Your task to perform on an android device: Open Maps and search for coffee Image 0: 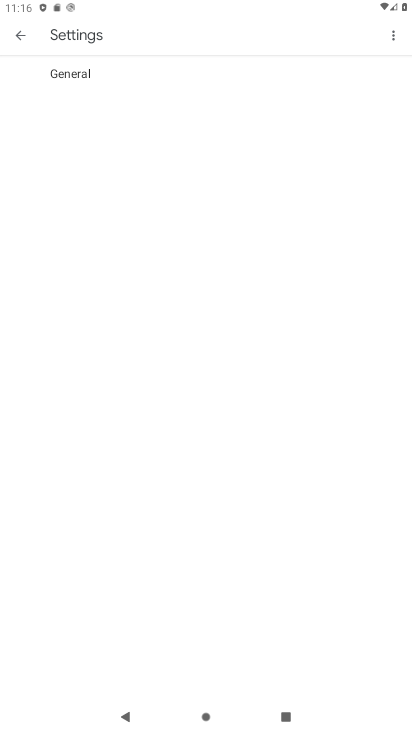
Step 0: press home button
Your task to perform on an android device: Open Maps and search for coffee Image 1: 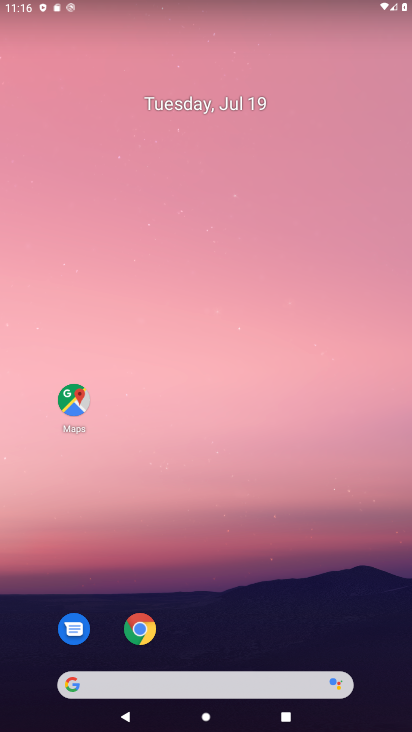
Step 1: drag from (334, 567) to (352, 121)
Your task to perform on an android device: Open Maps and search for coffee Image 2: 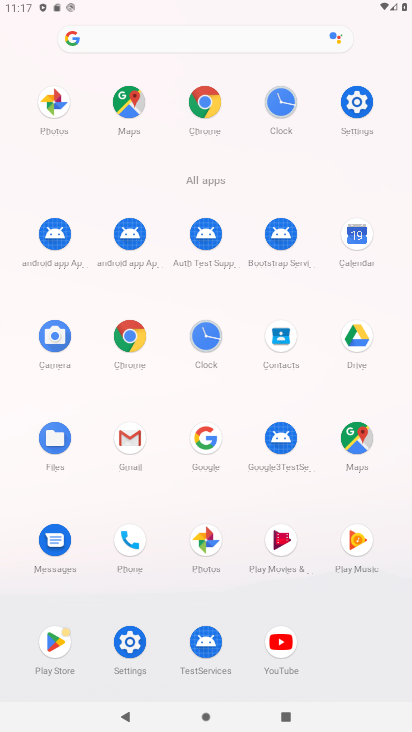
Step 2: click (359, 435)
Your task to perform on an android device: Open Maps and search for coffee Image 3: 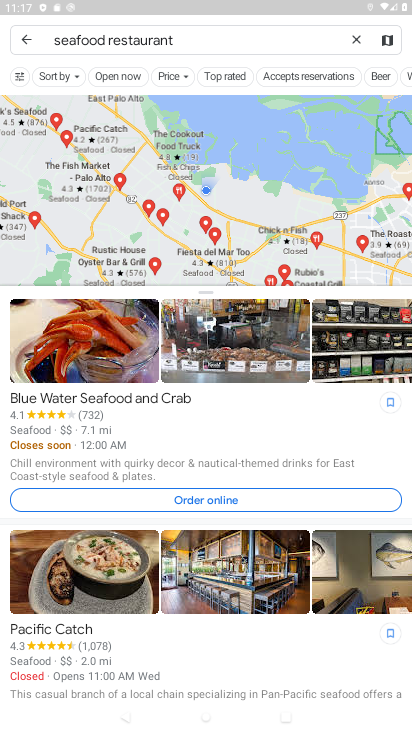
Step 3: press back button
Your task to perform on an android device: Open Maps and search for coffee Image 4: 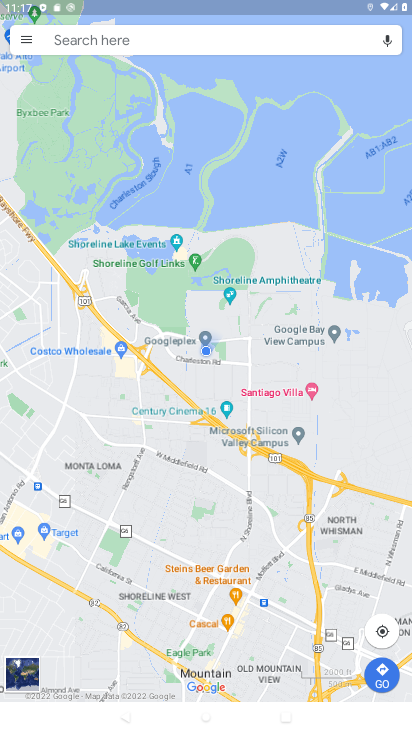
Step 4: click (290, 37)
Your task to perform on an android device: Open Maps and search for coffee Image 5: 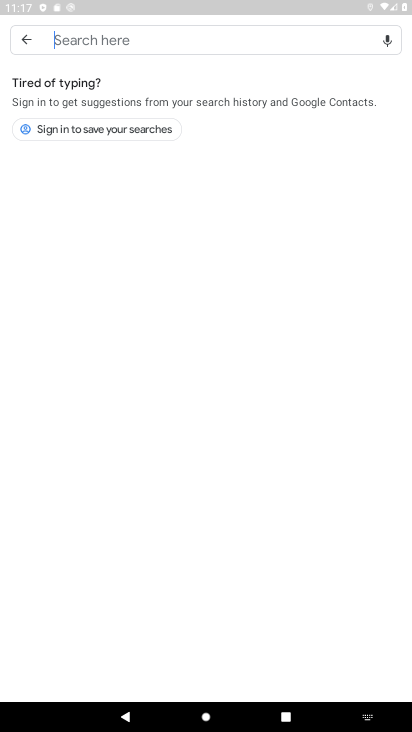
Step 5: type "coffee"
Your task to perform on an android device: Open Maps and search for coffee Image 6: 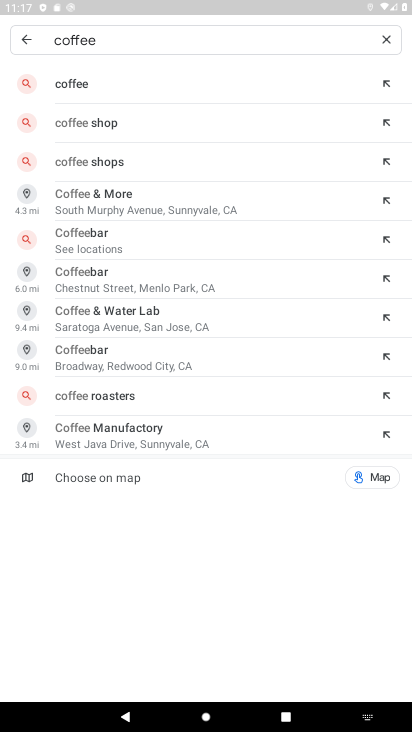
Step 6: click (146, 85)
Your task to perform on an android device: Open Maps and search for coffee Image 7: 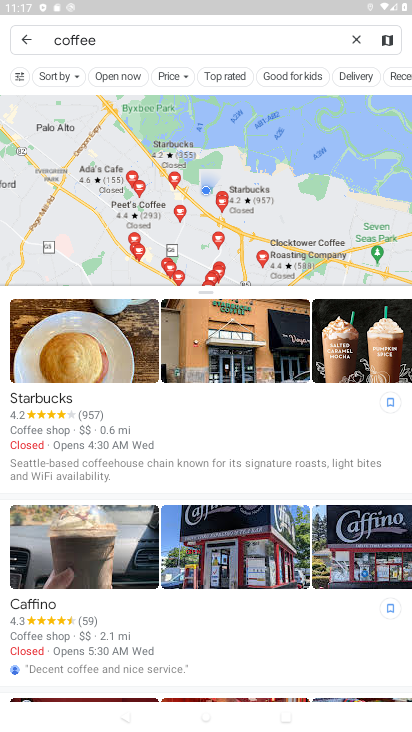
Step 7: task complete